Your task to perform on an android device: Open Android settings Image 0: 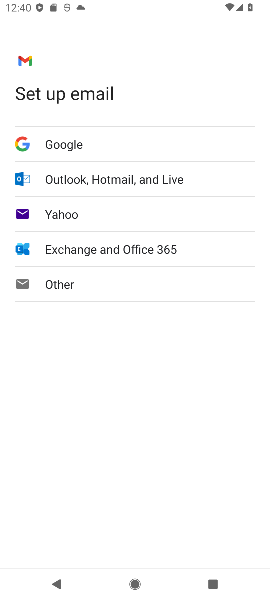
Step 0: press home button
Your task to perform on an android device: Open Android settings Image 1: 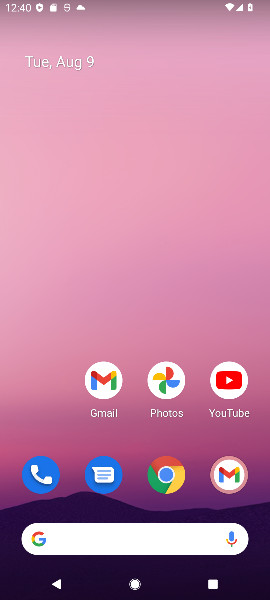
Step 1: drag from (139, 434) to (120, 56)
Your task to perform on an android device: Open Android settings Image 2: 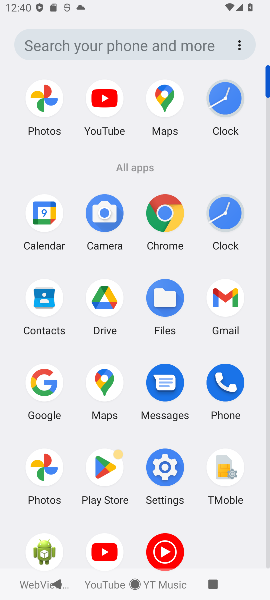
Step 2: click (157, 460)
Your task to perform on an android device: Open Android settings Image 3: 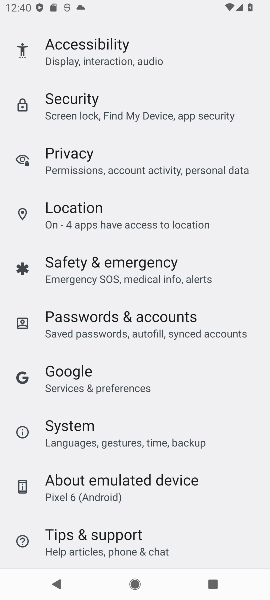
Step 3: click (114, 435)
Your task to perform on an android device: Open Android settings Image 4: 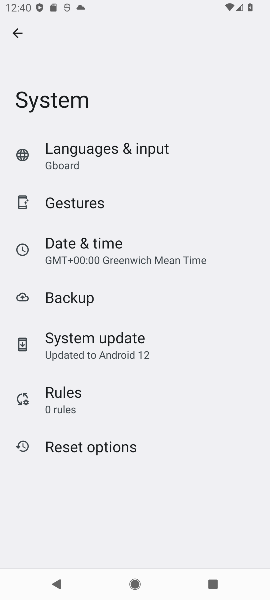
Step 4: task complete